Your task to perform on an android device: Open sound settings Image 0: 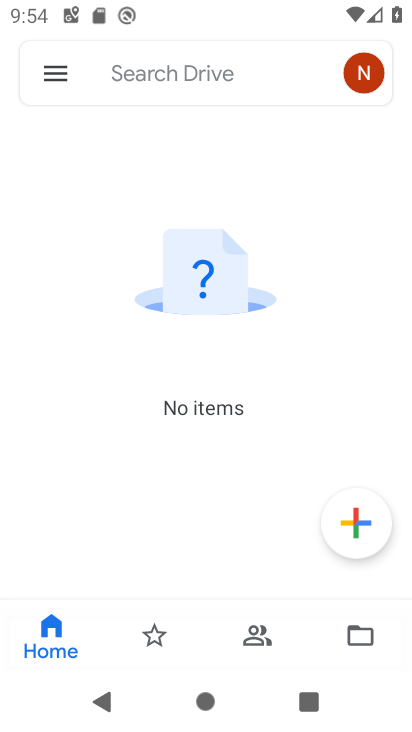
Step 0: press home button
Your task to perform on an android device: Open sound settings Image 1: 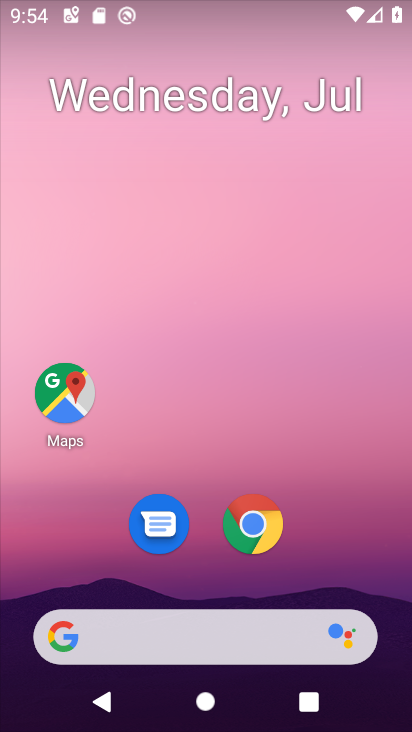
Step 1: drag from (320, 565) to (274, 61)
Your task to perform on an android device: Open sound settings Image 2: 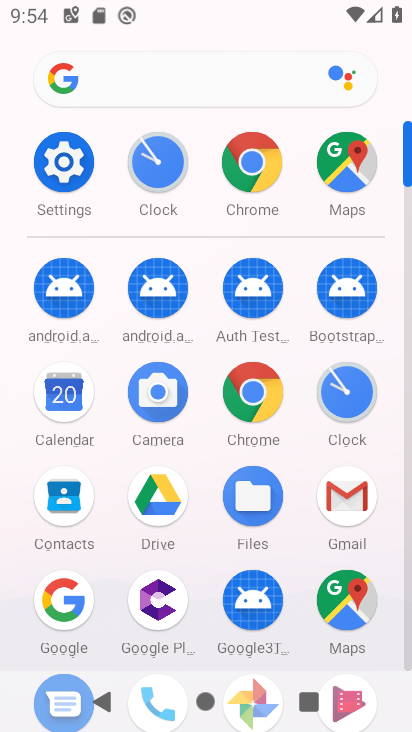
Step 2: click (71, 162)
Your task to perform on an android device: Open sound settings Image 3: 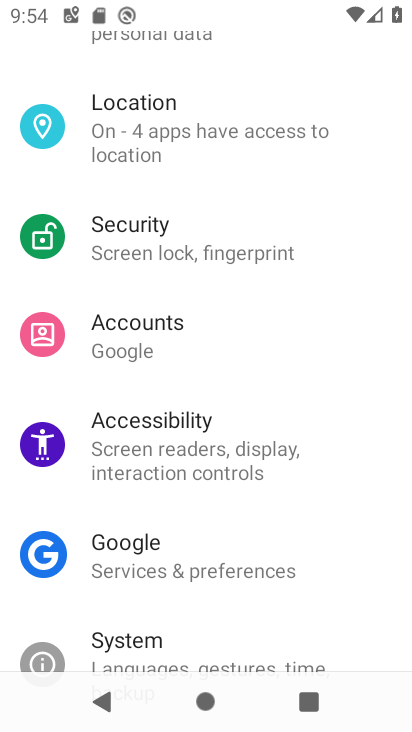
Step 3: drag from (227, 211) to (270, 630)
Your task to perform on an android device: Open sound settings Image 4: 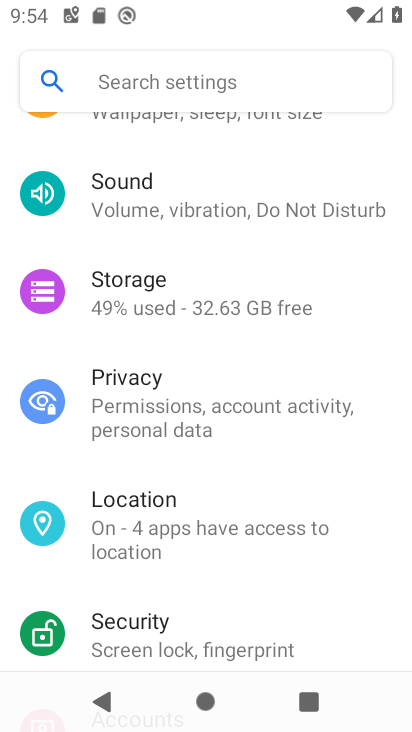
Step 4: click (236, 196)
Your task to perform on an android device: Open sound settings Image 5: 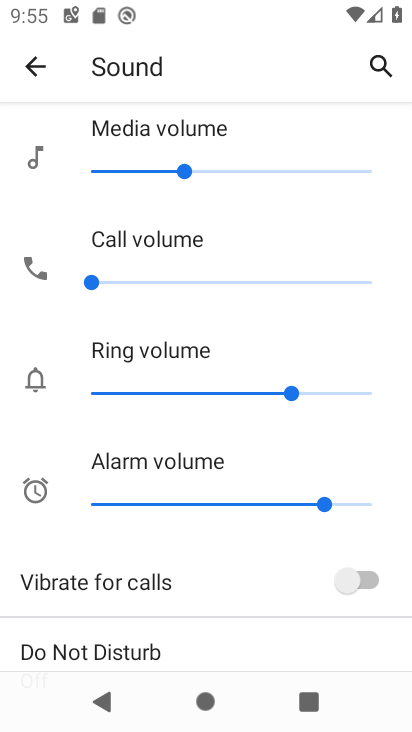
Step 5: task complete